Your task to perform on an android device: toggle priority inbox in the gmail app Image 0: 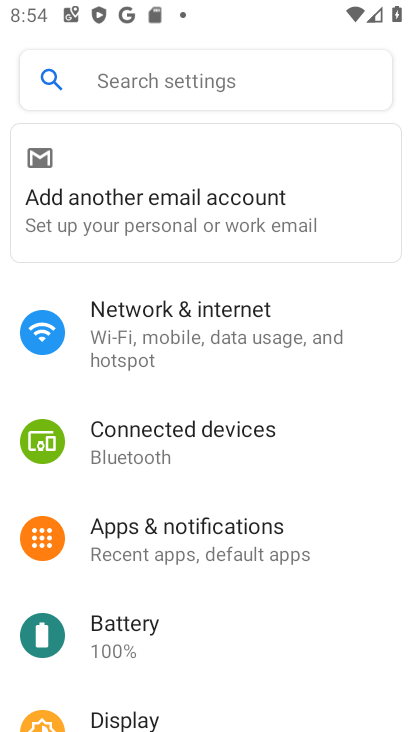
Step 0: press home button
Your task to perform on an android device: toggle priority inbox in the gmail app Image 1: 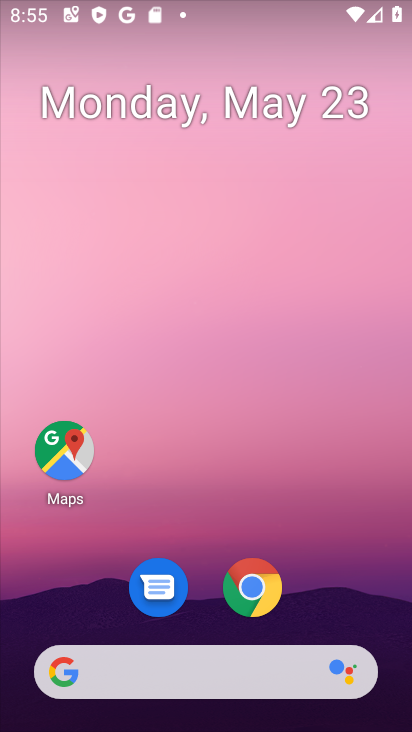
Step 1: drag from (190, 571) to (287, 126)
Your task to perform on an android device: toggle priority inbox in the gmail app Image 2: 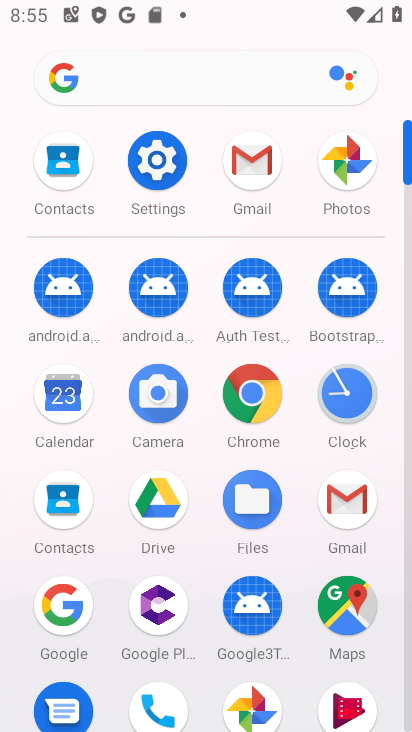
Step 2: click (254, 156)
Your task to perform on an android device: toggle priority inbox in the gmail app Image 3: 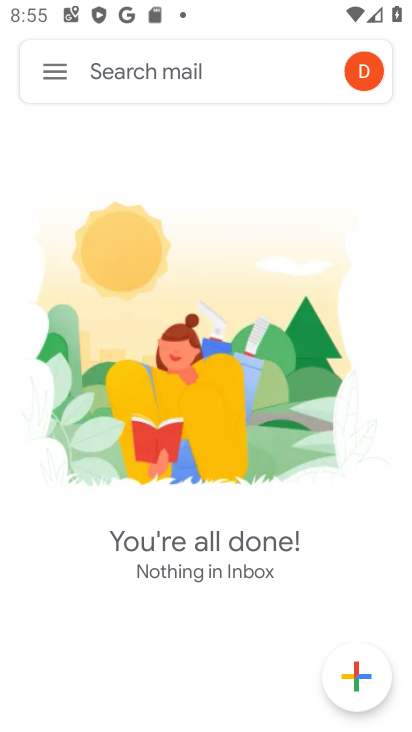
Step 3: click (44, 77)
Your task to perform on an android device: toggle priority inbox in the gmail app Image 4: 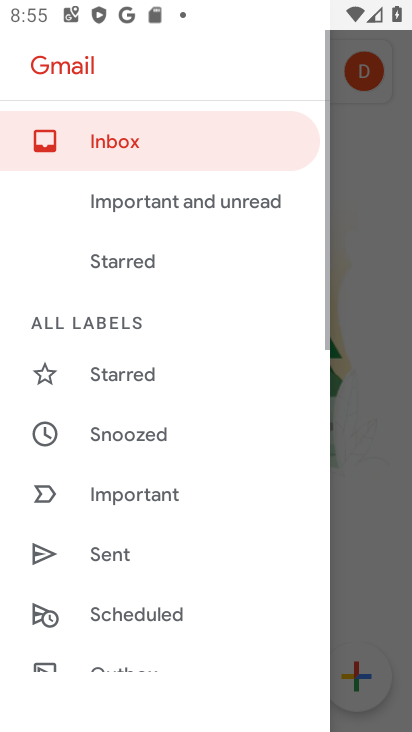
Step 4: drag from (138, 631) to (247, 45)
Your task to perform on an android device: toggle priority inbox in the gmail app Image 5: 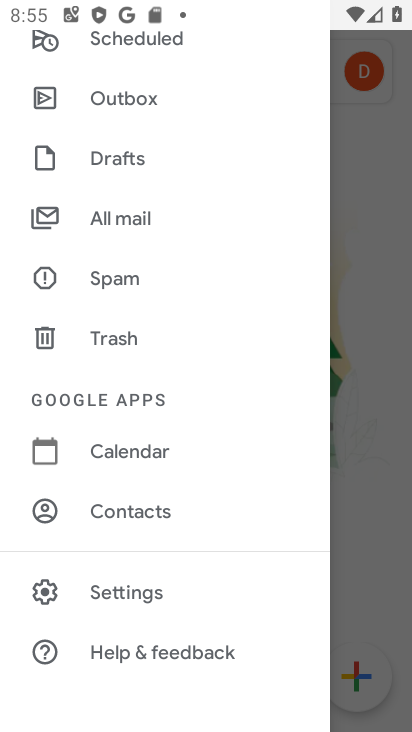
Step 5: click (148, 605)
Your task to perform on an android device: toggle priority inbox in the gmail app Image 6: 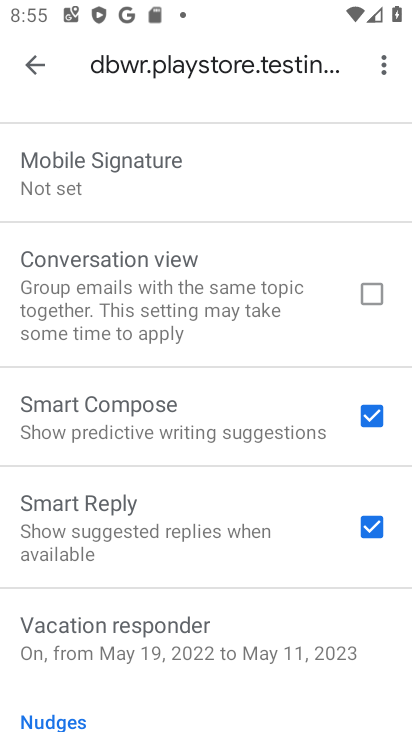
Step 6: drag from (151, 644) to (226, 232)
Your task to perform on an android device: toggle priority inbox in the gmail app Image 7: 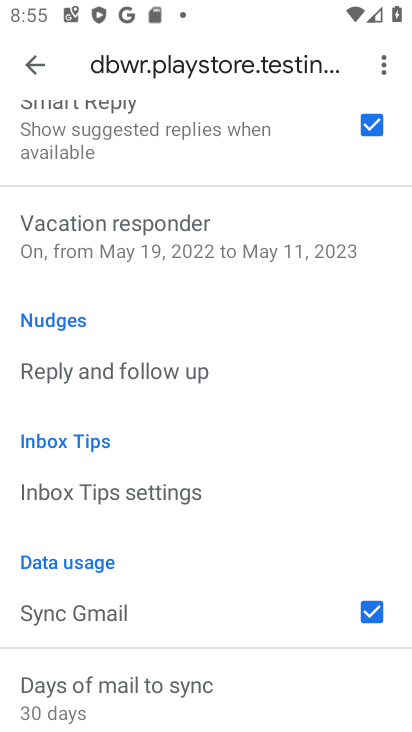
Step 7: drag from (186, 163) to (84, 719)
Your task to perform on an android device: toggle priority inbox in the gmail app Image 8: 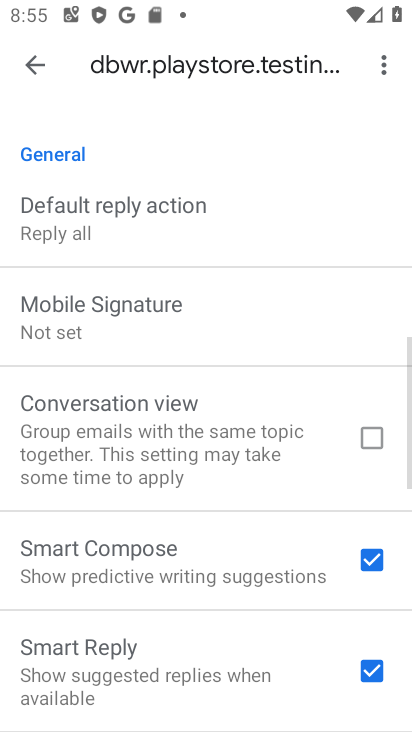
Step 8: drag from (137, 195) to (48, 730)
Your task to perform on an android device: toggle priority inbox in the gmail app Image 9: 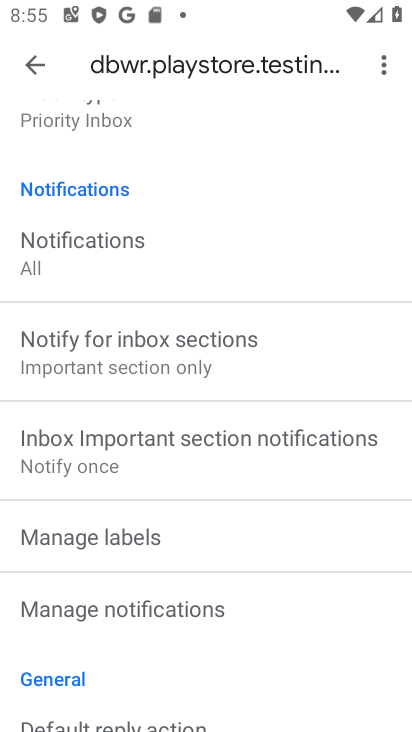
Step 9: drag from (99, 202) to (101, 597)
Your task to perform on an android device: toggle priority inbox in the gmail app Image 10: 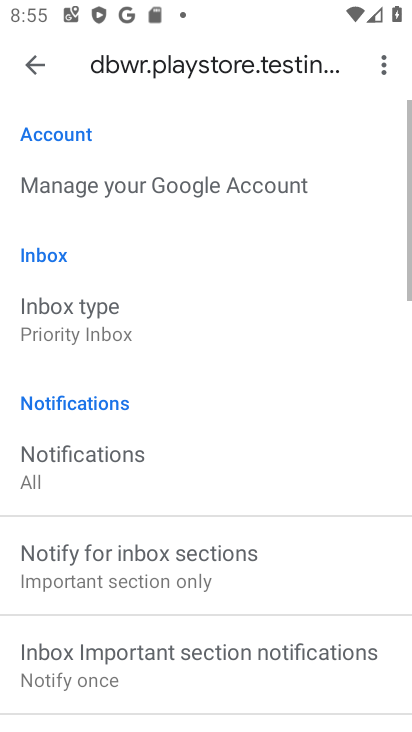
Step 10: click (72, 315)
Your task to perform on an android device: toggle priority inbox in the gmail app Image 11: 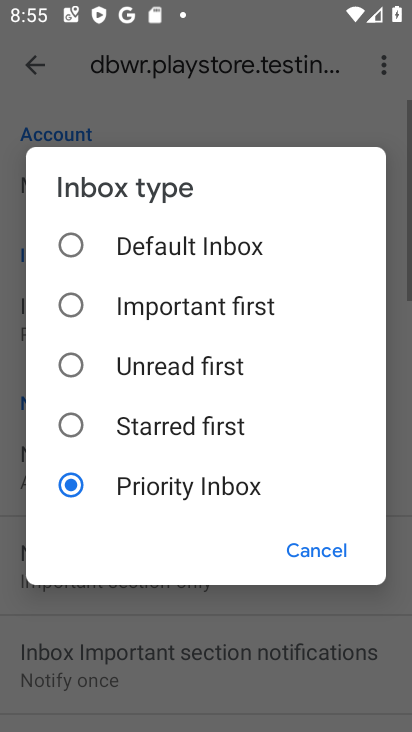
Step 11: click (79, 481)
Your task to perform on an android device: toggle priority inbox in the gmail app Image 12: 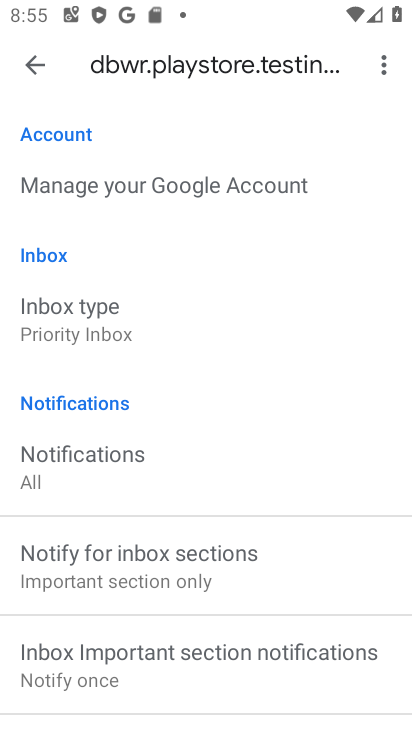
Step 12: click (84, 313)
Your task to perform on an android device: toggle priority inbox in the gmail app Image 13: 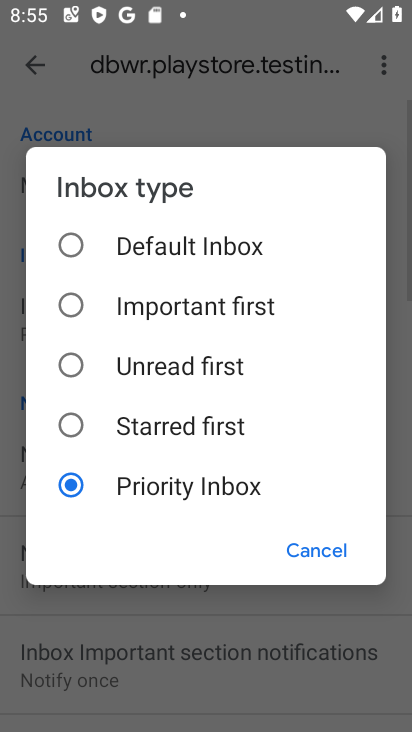
Step 13: click (73, 474)
Your task to perform on an android device: toggle priority inbox in the gmail app Image 14: 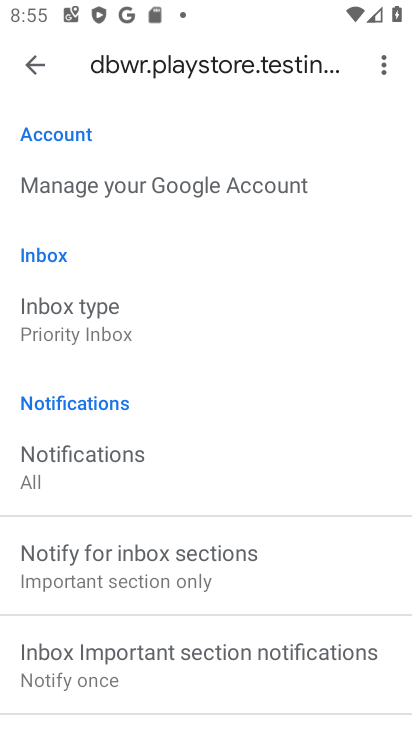
Step 14: task complete